Your task to perform on an android device: set default search engine in the chrome app Image 0: 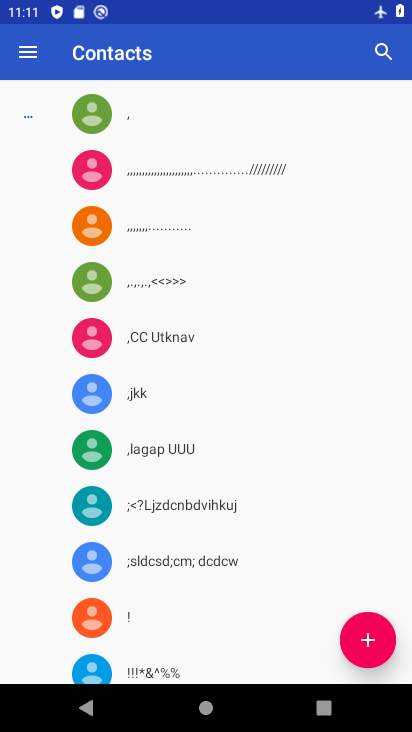
Step 0: press home button
Your task to perform on an android device: set default search engine in the chrome app Image 1: 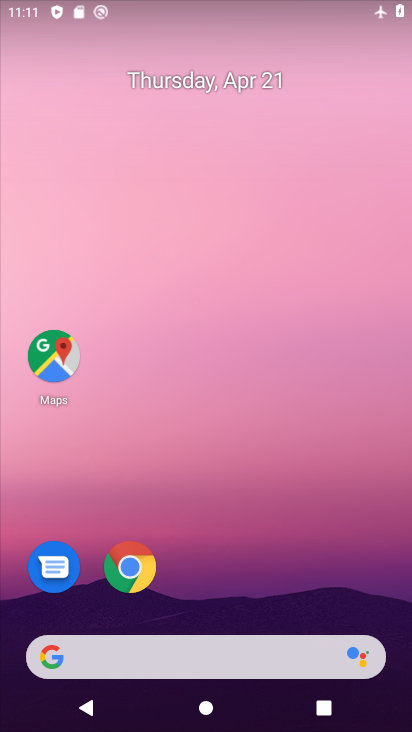
Step 1: click (131, 575)
Your task to perform on an android device: set default search engine in the chrome app Image 2: 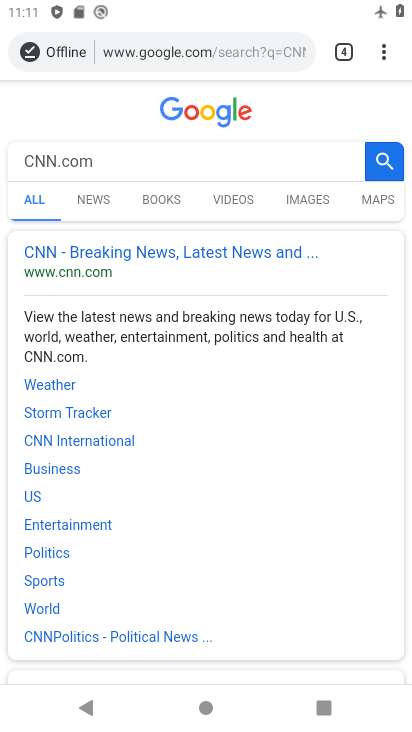
Step 2: click (389, 57)
Your task to perform on an android device: set default search engine in the chrome app Image 3: 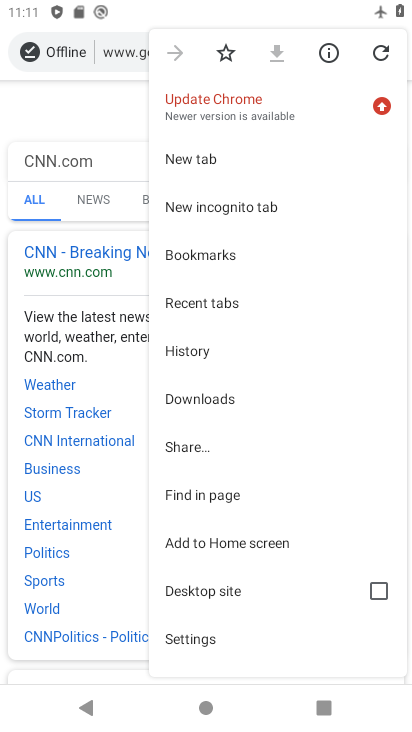
Step 3: click (211, 630)
Your task to perform on an android device: set default search engine in the chrome app Image 4: 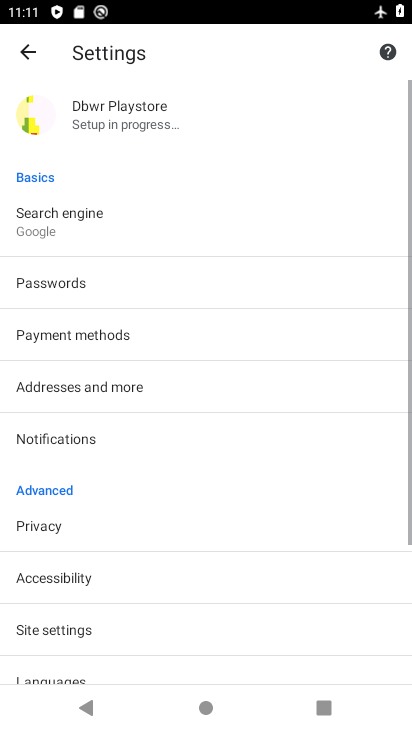
Step 4: click (75, 227)
Your task to perform on an android device: set default search engine in the chrome app Image 5: 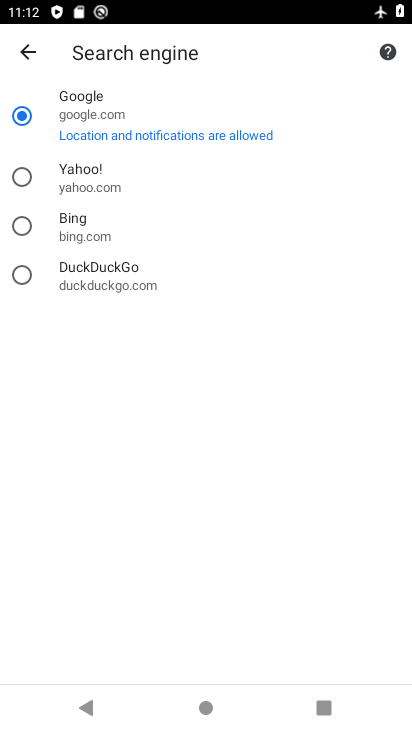
Step 5: press home button
Your task to perform on an android device: set default search engine in the chrome app Image 6: 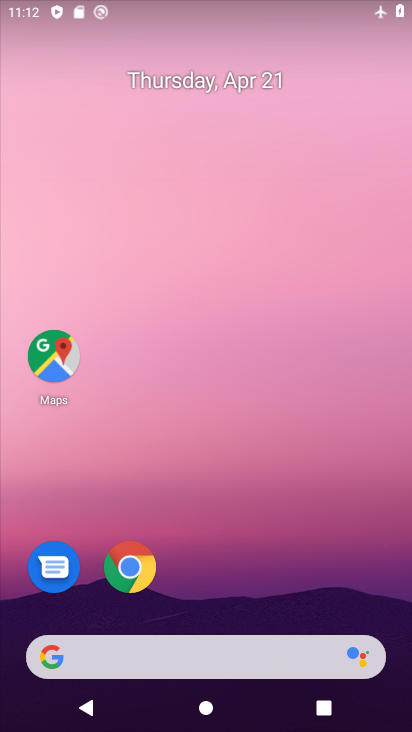
Step 6: click (130, 564)
Your task to perform on an android device: set default search engine in the chrome app Image 7: 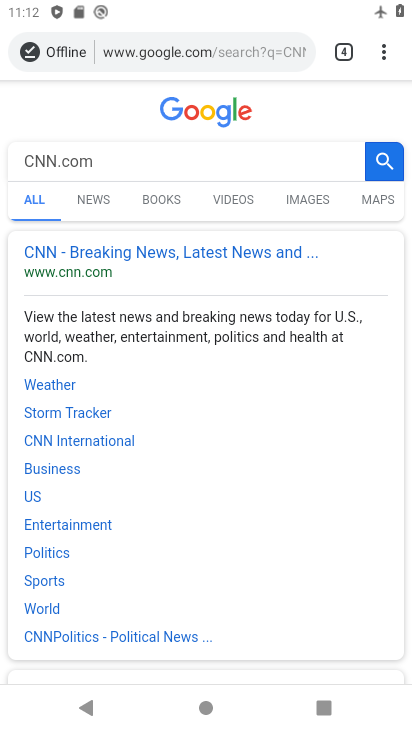
Step 7: click (389, 62)
Your task to perform on an android device: set default search engine in the chrome app Image 8: 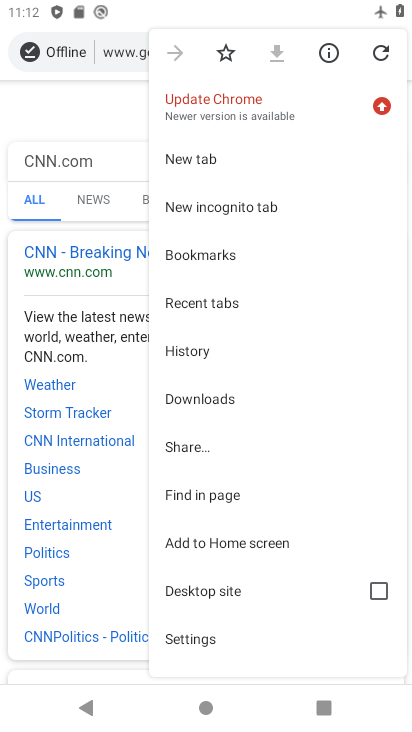
Step 8: click (191, 640)
Your task to perform on an android device: set default search engine in the chrome app Image 9: 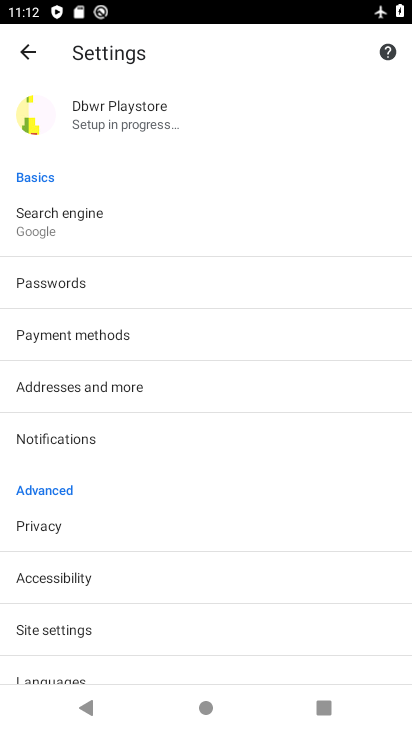
Step 9: click (55, 224)
Your task to perform on an android device: set default search engine in the chrome app Image 10: 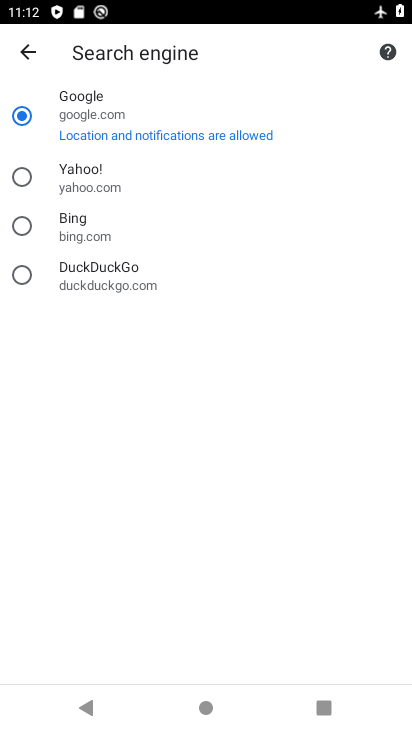
Step 10: task complete